Your task to perform on an android device: open wifi settings Image 0: 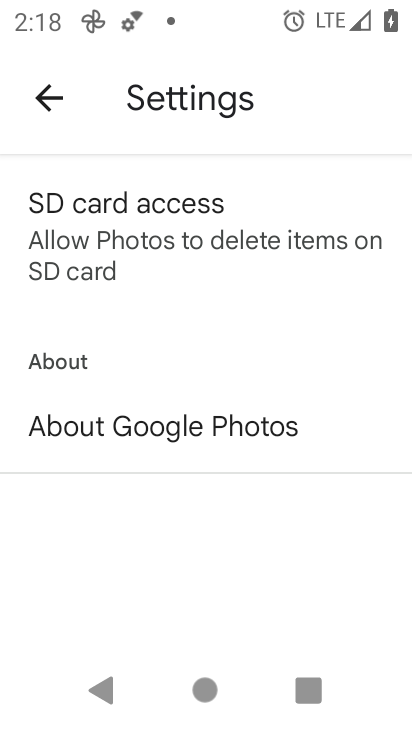
Step 0: press home button
Your task to perform on an android device: open wifi settings Image 1: 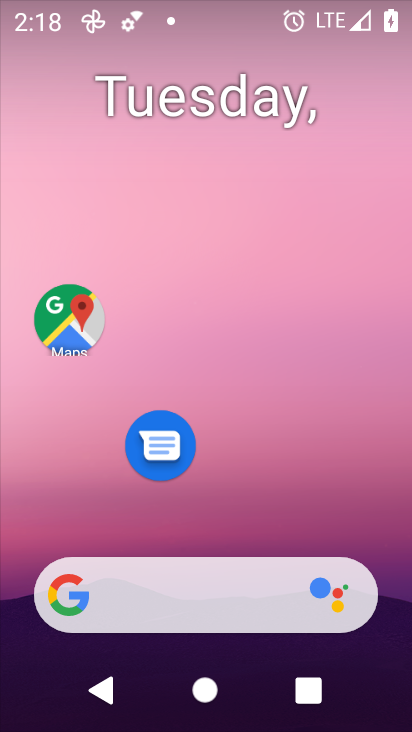
Step 1: drag from (308, 485) to (222, 21)
Your task to perform on an android device: open wifi settings Image 2: 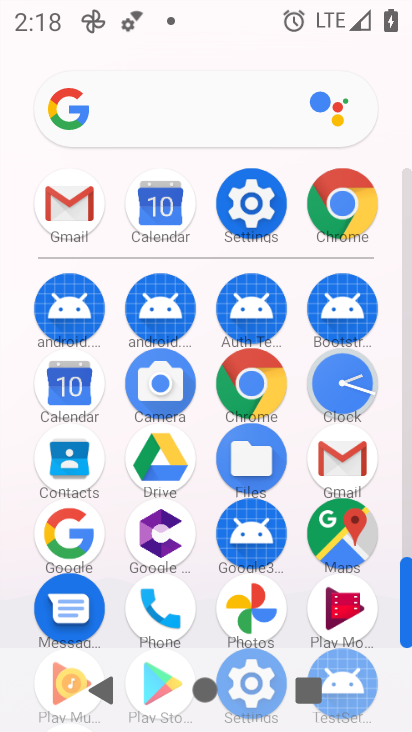
Step 2: click (254, 206)
Your task to perform on an android device: open wifi settings Image 3: 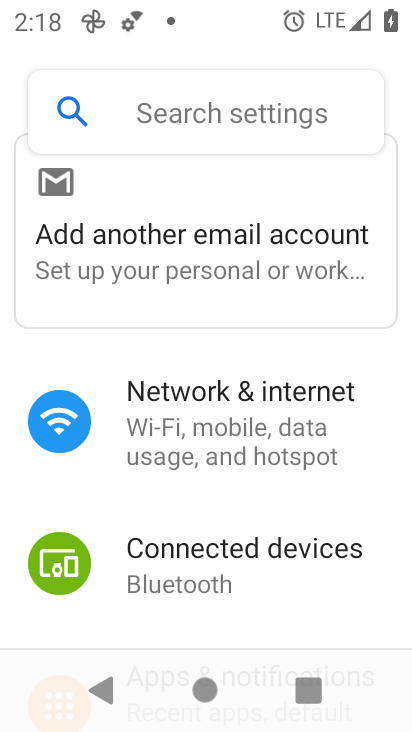
Step 3: click (205, 401)
Your task to perform on an android device: open wifi settings Image 4: 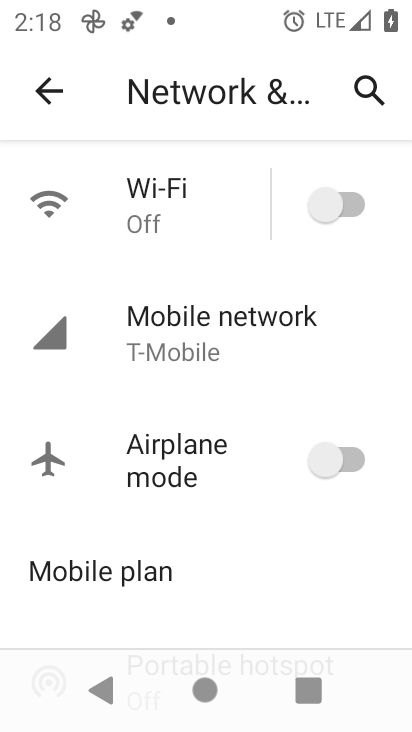
Step 4: click (176, 177)
Your task to perform on an android device: open wifi settings Image 5: 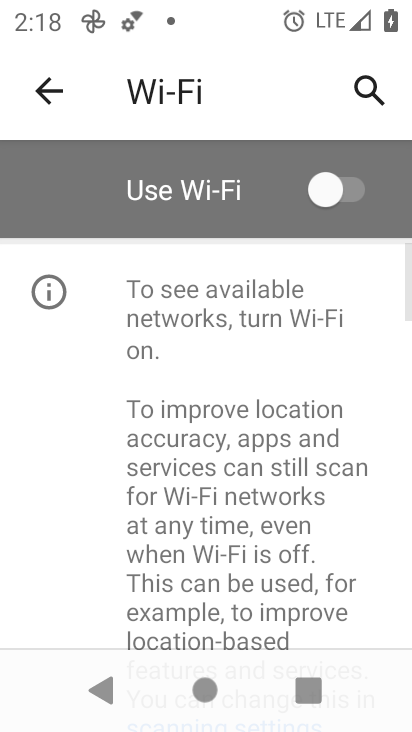
Step 5: task complete